Your task to perform on an android device: turn on airplane mode Image 0: 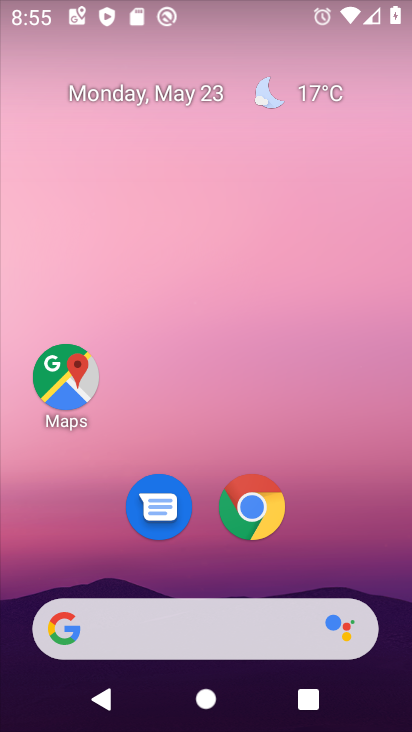
Step 0: drag from (364, 590) to (342, 1)
Your task to perform on an android device: turn on airplane mode Image 1: 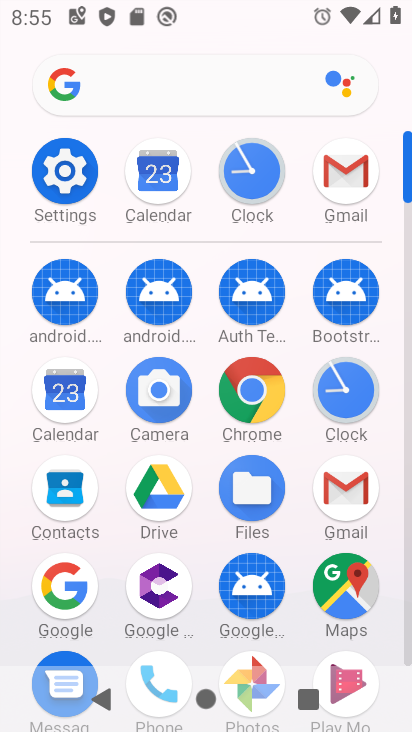
Step 1: click (71, 174)
Your task to perform on an android device: turn on airplane mode Image 2: 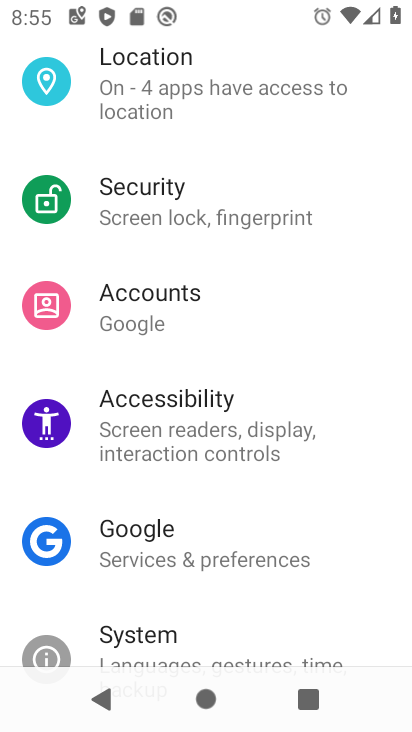
Step 2: drag from (261, 187) to (255, 572)
Your task to perform on an android device: turn on airplane mode Image 3: 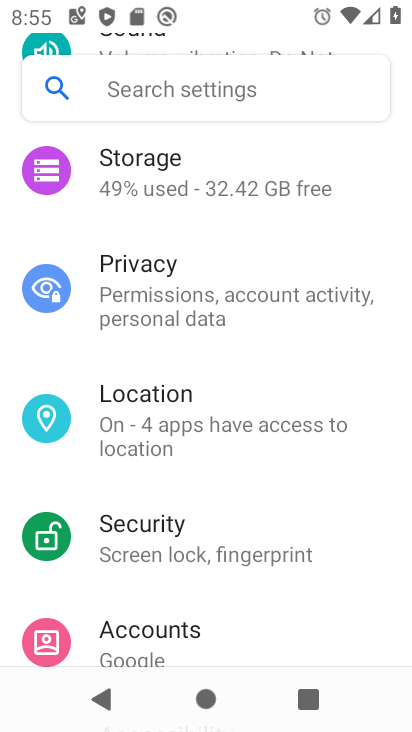
Step 3: drag from (334, 227) to (284, 566)
Your task to perform on an android device: turn on airplane mode Image 4: 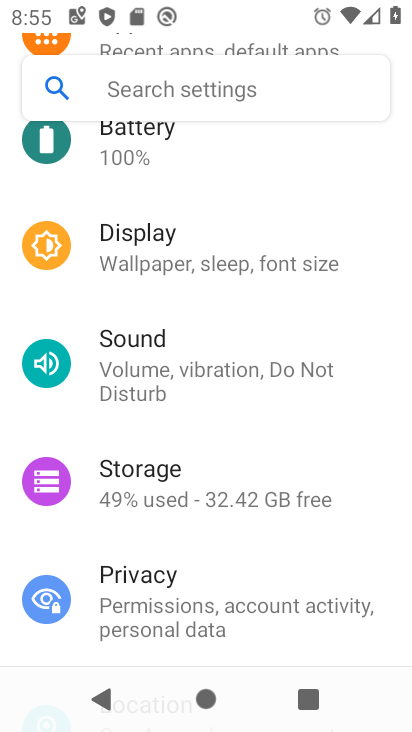
Step 4: drag from (299, 213) to (301, 573)
Your task to perform on an android device: turn on airplane mode Image 5: 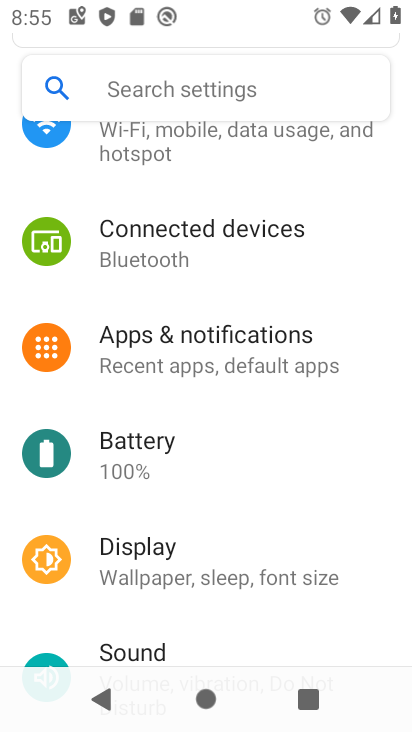
Step 5: drag from (279, 240) to (265, 562)
Your task to perform on an android device: turn on airplane mode Image 6: 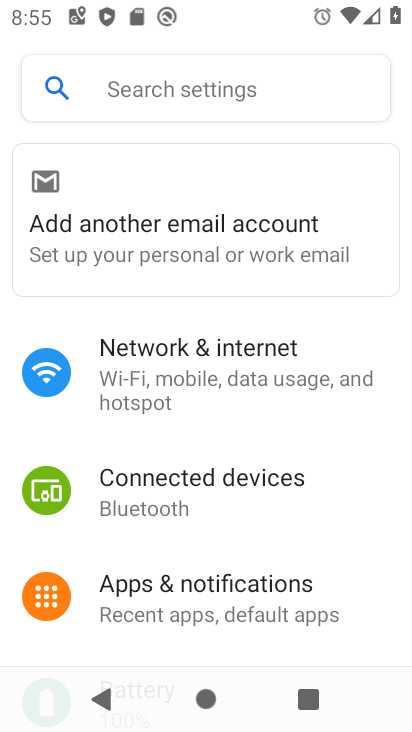
Step 6: click (182, 382)
Your task to perform on an android device: turn on airplane mode Image 7: 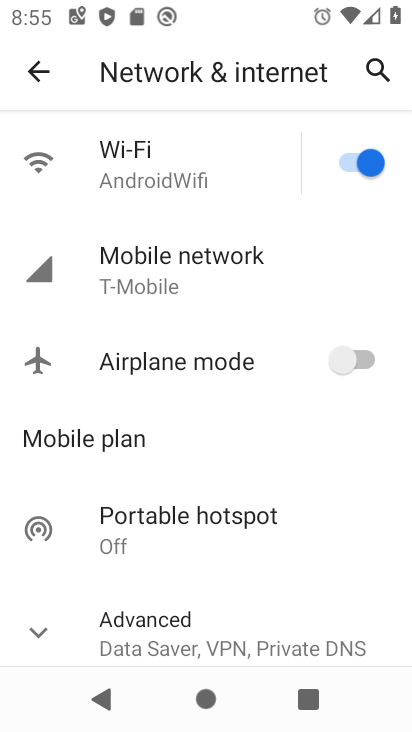
Step 7: click (335, 365)
Your task to perform on an android device: turn on airplane mode Image 8: 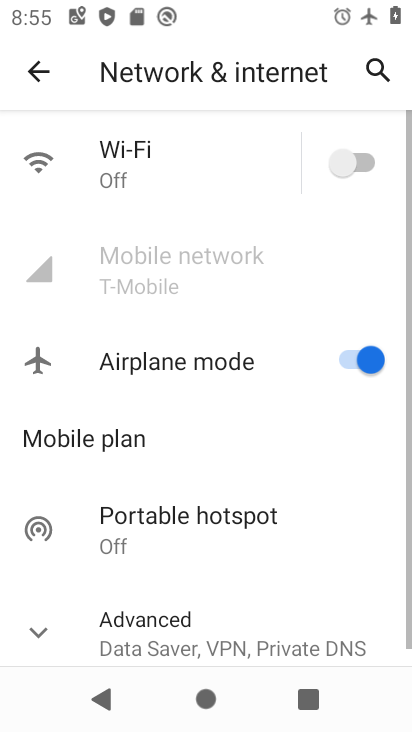
Step 8: task complete